Your task to perform on an android device: Go to settings Image 0: 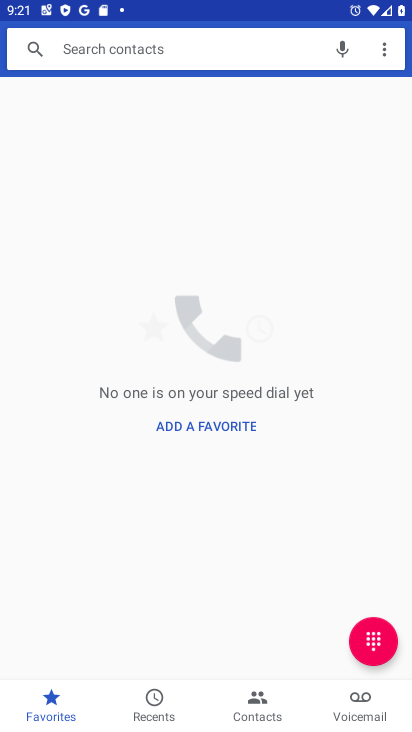
Step 0: press home button
Your task to perform on an android device: Go to settings Image 1: 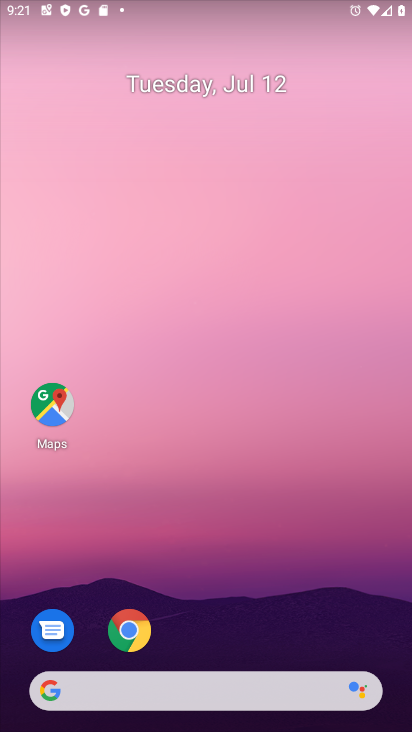
Step 1: drag from (223, 634) to (225, 121)
Your task to perform on an android device: Go to settings Image 2: 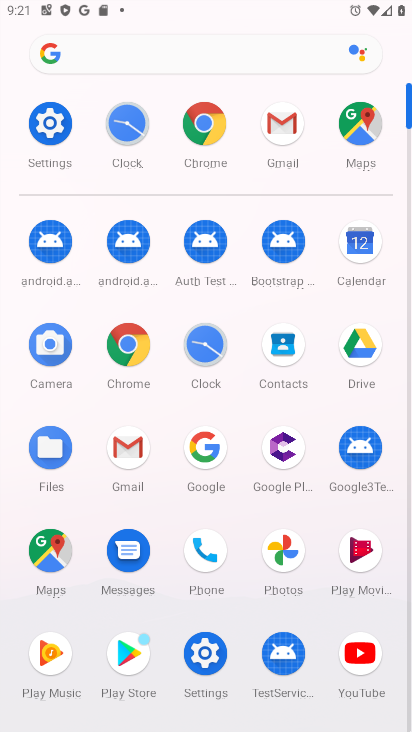
Step 2: click (51, 122)
Your task to perform on an android device: Go to settings Image 3: 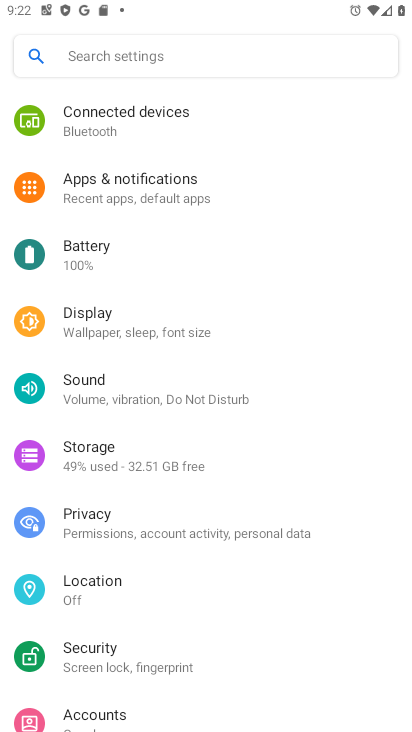
Step 3: task complete